Your task to perform on an android device: Search for seafood restaurants on Google Maps Image 0: 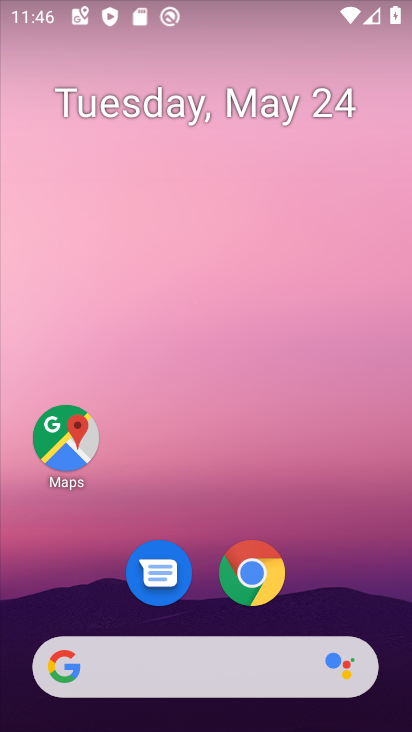
Step 0: drag from (347, 587) to (219, 9)
Your task to perform on an android device: Search for seafood restaurants on Google Maps Image 1: 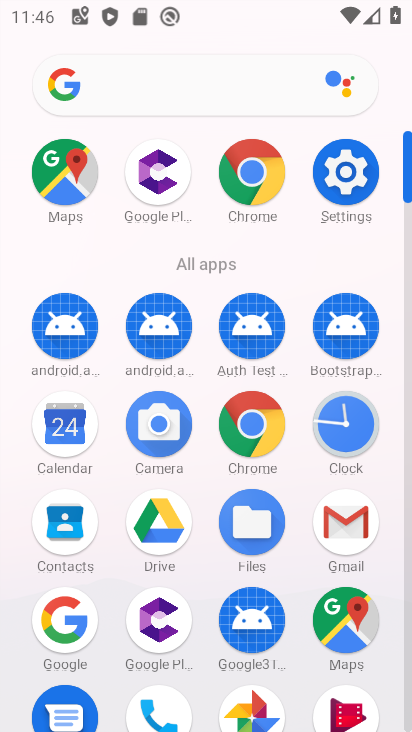
Step 1: drag from (8, 581) to (12, 270)
Your task to perform on an android device: Search for seafood restaurants on Google Maps Image 2: 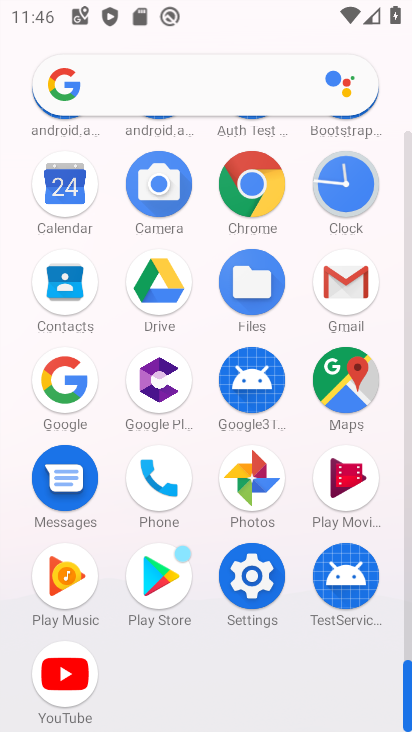
Step 2: click (344, 377)
Your task to perform on an android device: Search for seafood restaurants on Google Maps Image 3: 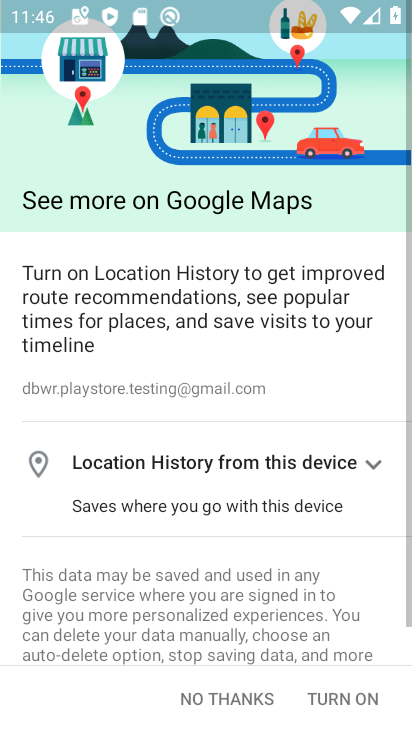
Step 3: click (332, 685)
Your task to perform on an android device: Search for seafood restaurants on Google Maps Image 4: 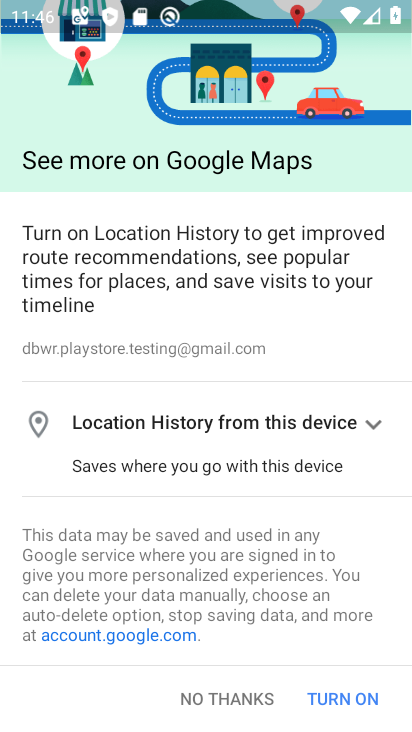
Step 4: click (346, 696)
Your task to perform on an android device: Search for seafood restaurants on Google Maps Image 5: 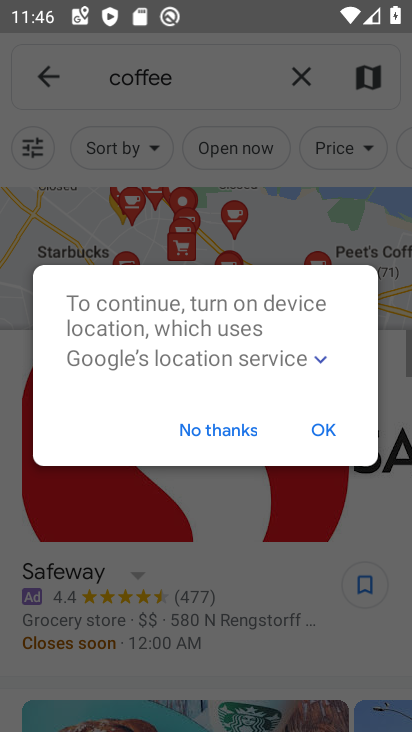
Step 5: click (330, 429)
Your task to perform on an android device: Search for seafood restaurants on Google Maps Image 6: 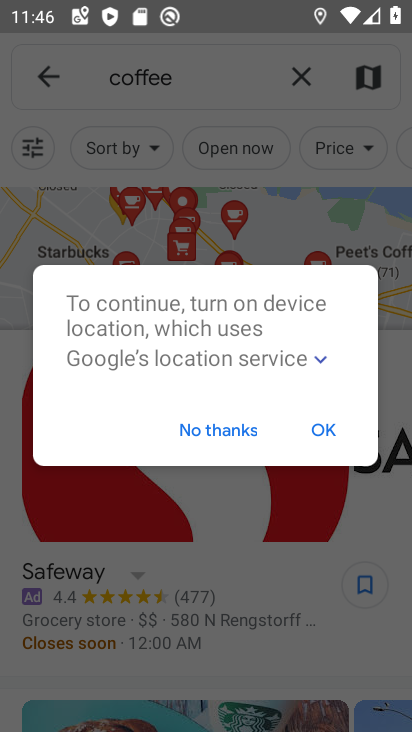
Step 6: click (319, 424)
Your task to perform on an android device: Search for seafood restaurants on Google Maps Image 7: 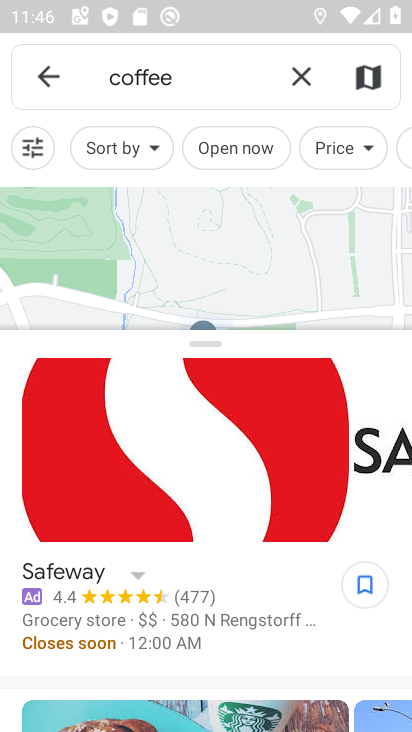
Step 7: click (61, 80)
Your task to perform on an android device: Search for seafood restaurants on Google Maps Image 8: 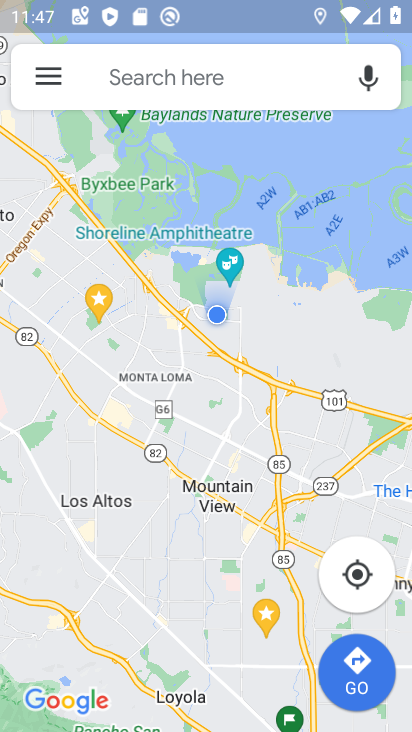
Step 8: click (276, 76)
Your task to perform on an android device: Search for seafood restaurants on Google Maps Image 9: 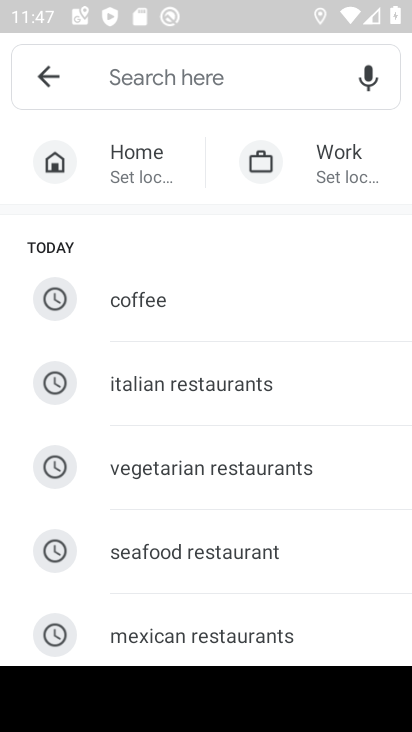
Step 9: click (195, 542)
Your task to perform on an android device: Search for seafood restaurants on Google Maps Image 10: 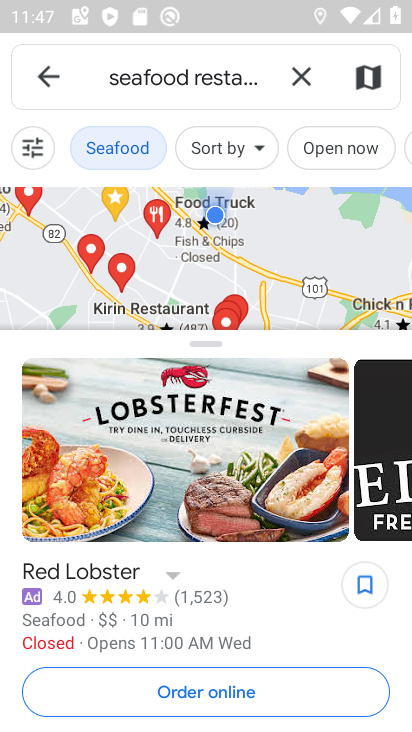
Step 10: task complete